Your task to perform on an android device: turn off location Image 0: 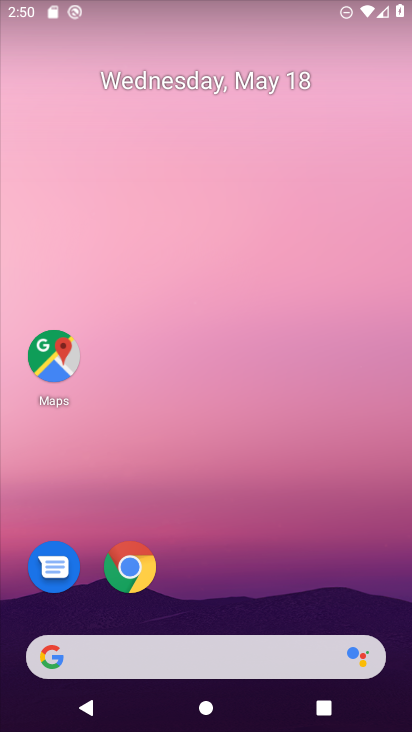
Step 0: drag from (216, 565) to (218, 113)
Your task to perform on an android device: turn off location Image 1: 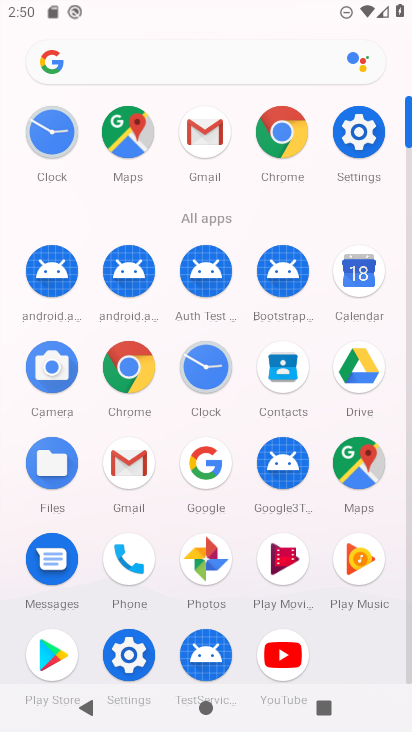
Step 1: click (369, 140)
Your task to perform on an android device: turn off location Image 2: 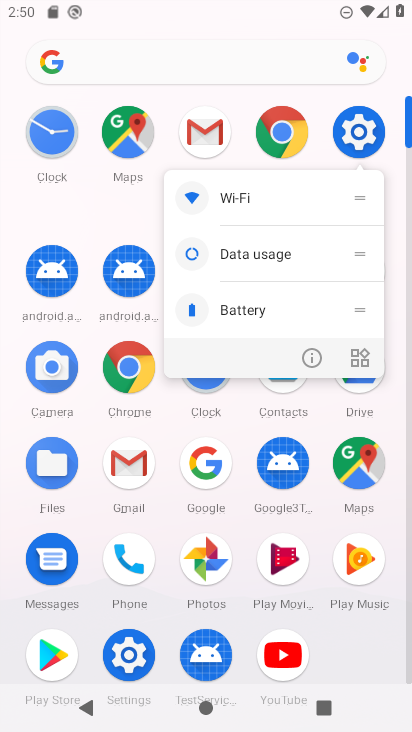
Step 2: click (351, 139)
Your task to perform on an android device: turn off location Image 3: 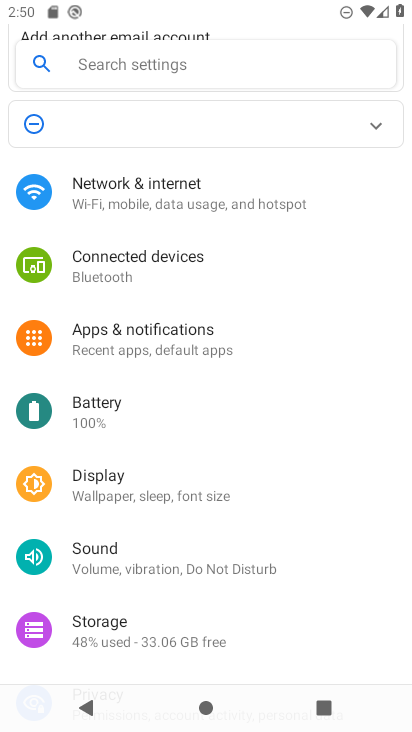
Step 3: drag from (177, 546) to (214, 248)
Your task to perform on an android device: turn off location Image 4: 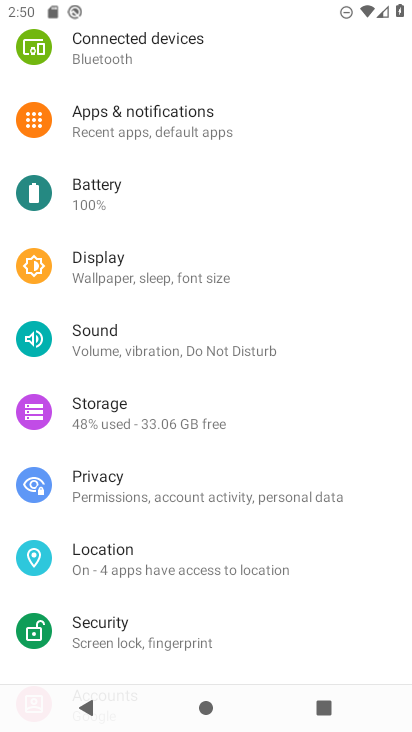
Step 4: drag from (127, 594) to (210, 304)
Your task to perform on an android device: turn off location Image 5: 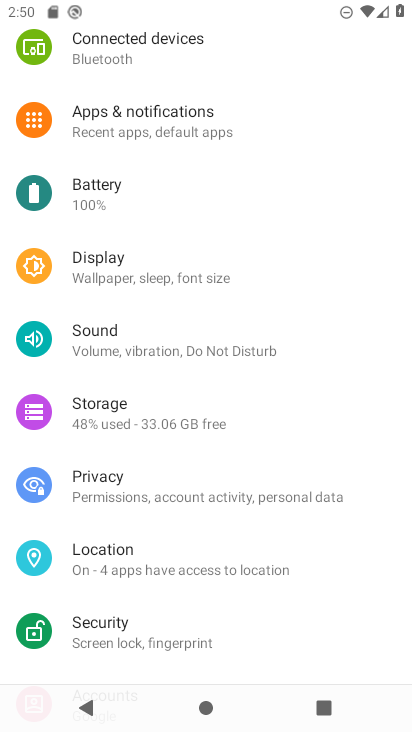
Step 5: click (115, 570)
Your task to perform on an android device: turn off location Image 6: 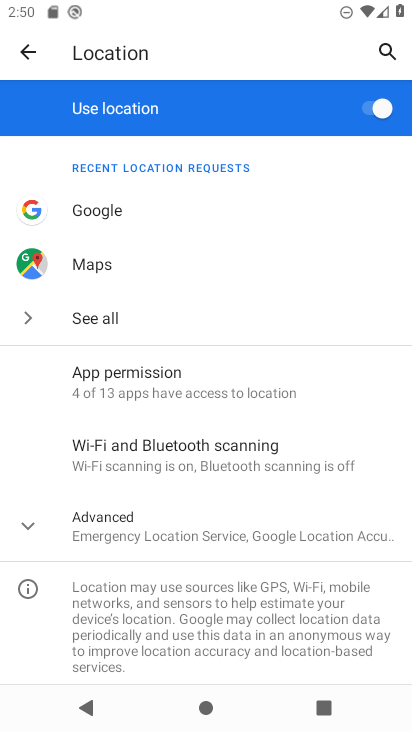
Step 6: click (370, 109)
Your task to perform on an android device: turn off location Image 7: 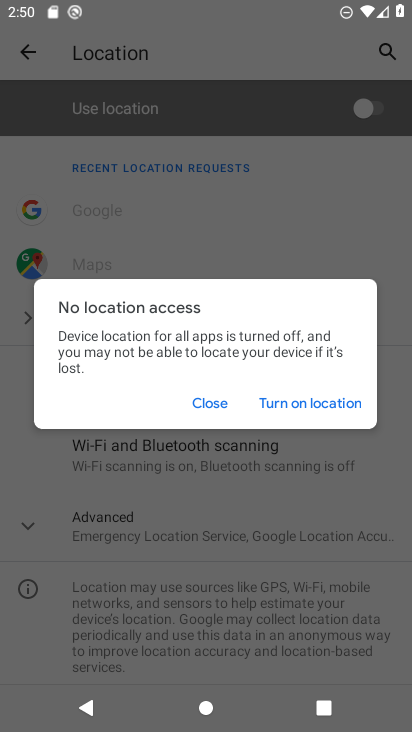
Step 7: task complete